Your task to perform on an android device: Open maps Image 0: 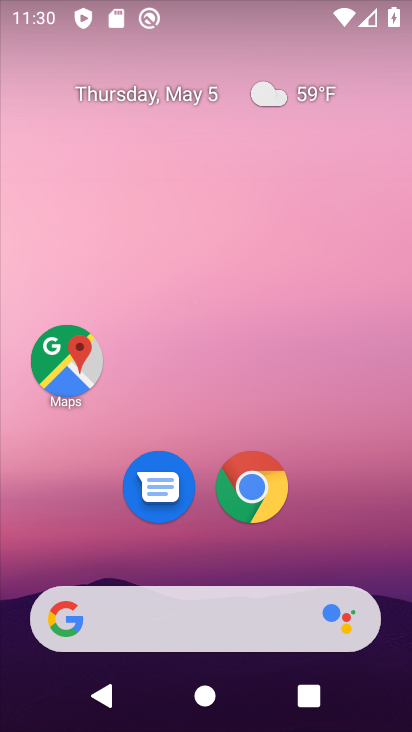
Step 0: click (63, 362)
Your task to perform on an android device: Open maps Image 1: 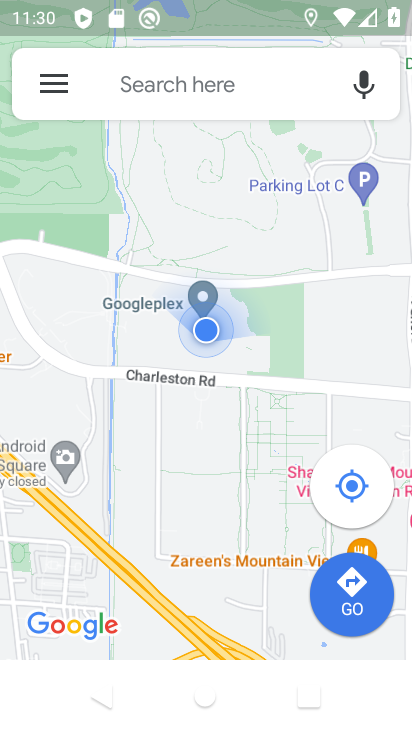
Step 1: task complete